Your task to perform on an android device: change the clock style Image 0: 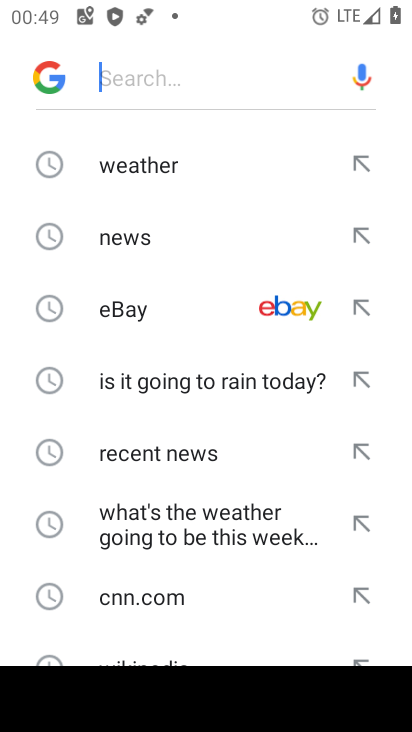
Step 0: press home button
Your task to perform on an android device: change the clock style Image 1: 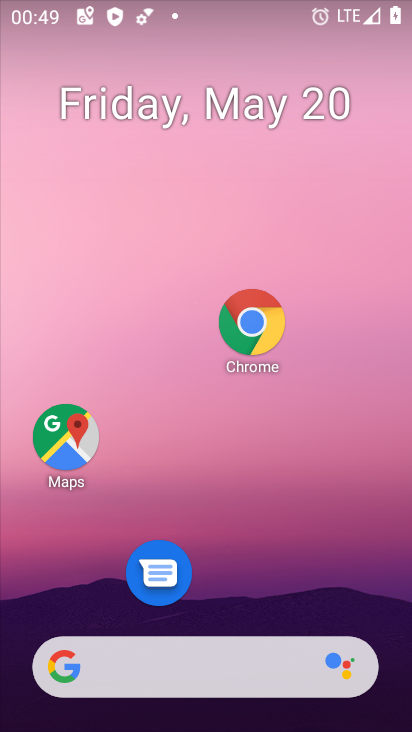
Step 1: drag from (211, 574) to (195, 179)
Your task to perform on an android device: change the clock style Image 2: 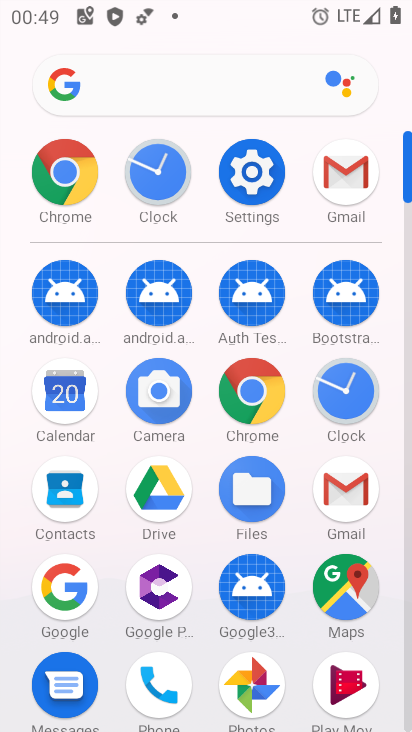
Step 2: click (335, 383)
Your task to perform on an android device: change the clock style Image 3: 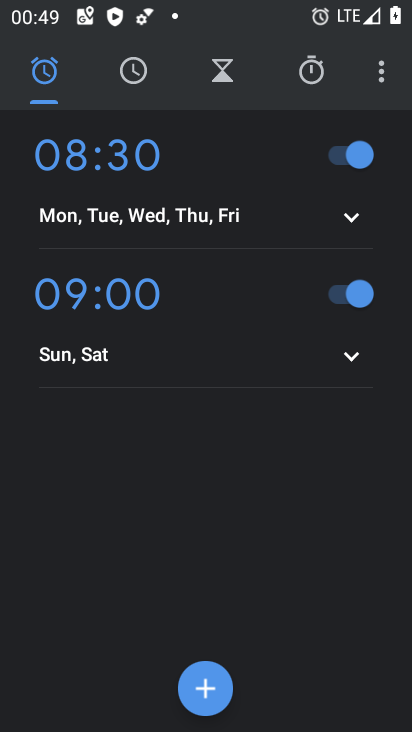
Step 3: click (380, 56)
Your task to perform on an android device: change the clock style Image 4: 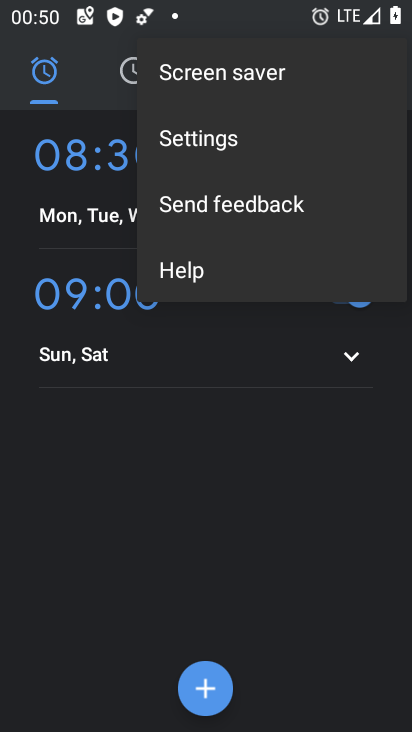
Step 4: click (248, 133)
Your task to perform on an android device: change the clock style Image 5: 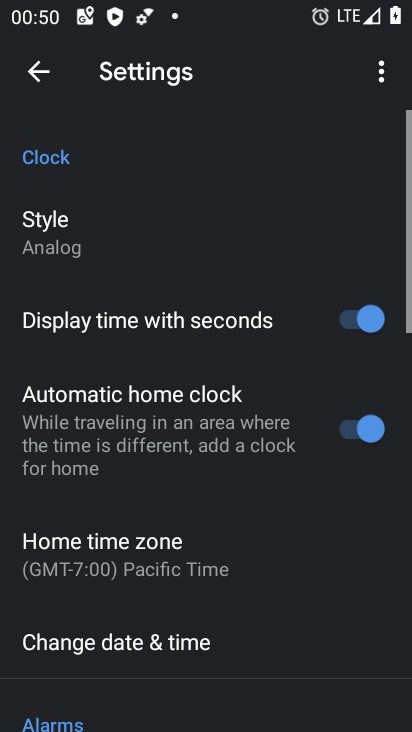
Step 5: click (82, 232)
Your task to perform on an android device: change the clock style Image 6: 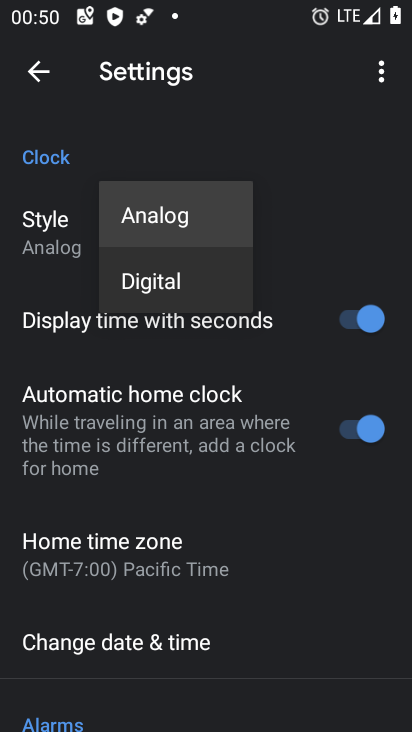
Step 6: click (138, 277)
Your task to perform on an android device: change the clock style Image 7: 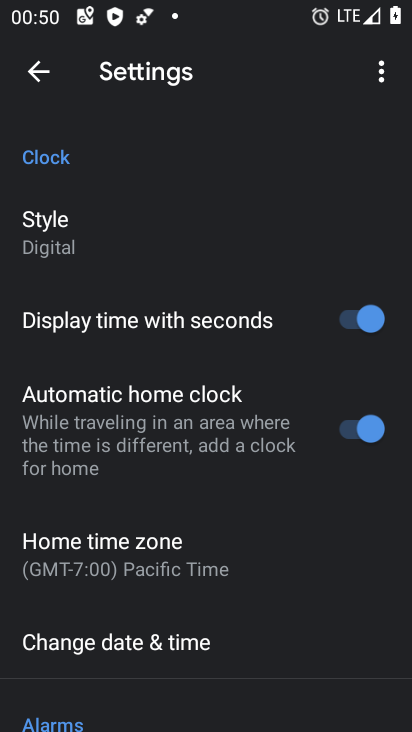
Step 7: task complete